Your task to perform on an android device: What's on my calendar tomorrow? Image 0: 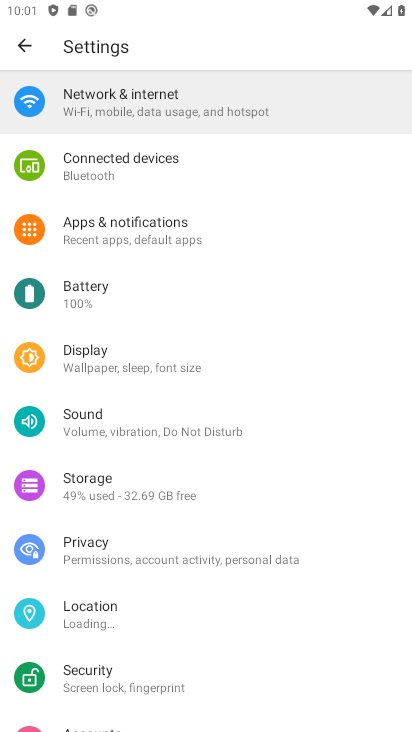
Step 0: press home button
Your task to perform on an android device: What's on my calendar tomorrow? Image 1: 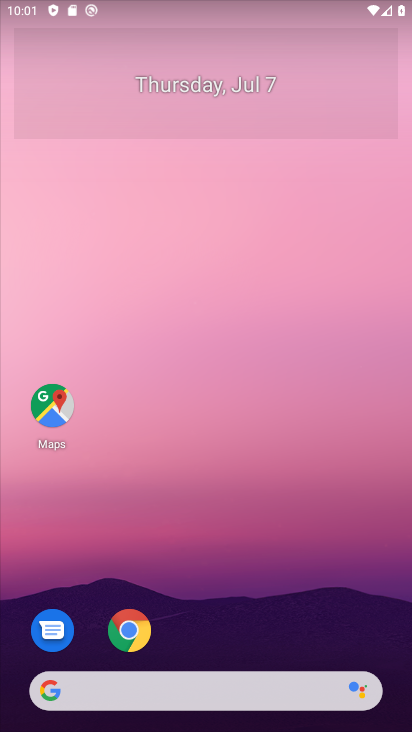
Step 1: drag from (115, 542) to (259, 112)
Your task to perform on an android device: What's on my calendar tomorrow? Image 2: 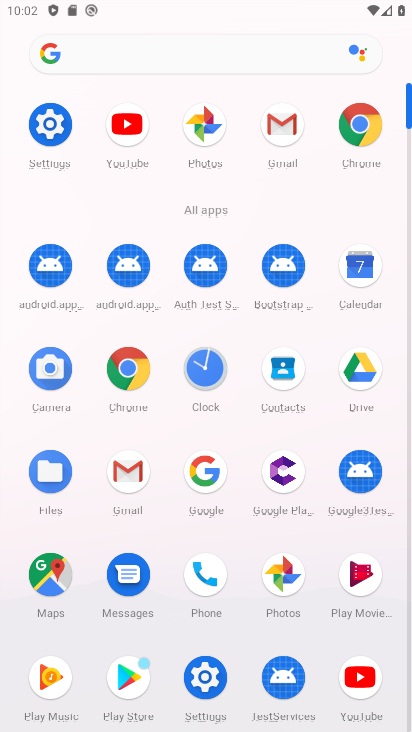
Step 2: click (371, 286)
Your task to perform on an android device: What's on my calendar tomorrow? Image 3: 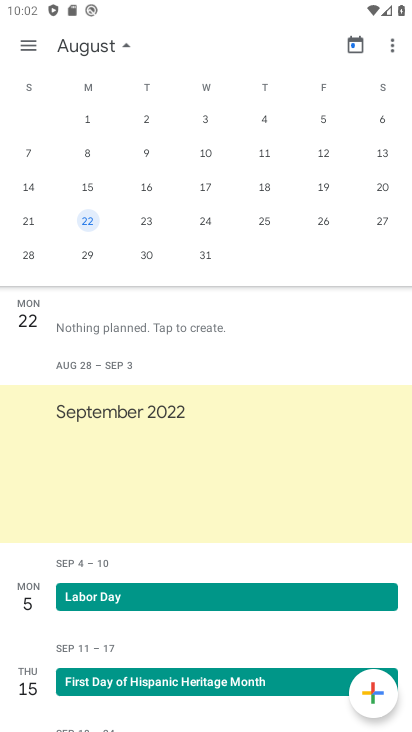
Step 3: task complete